Your task to perform on an android device: check android version Image 0: 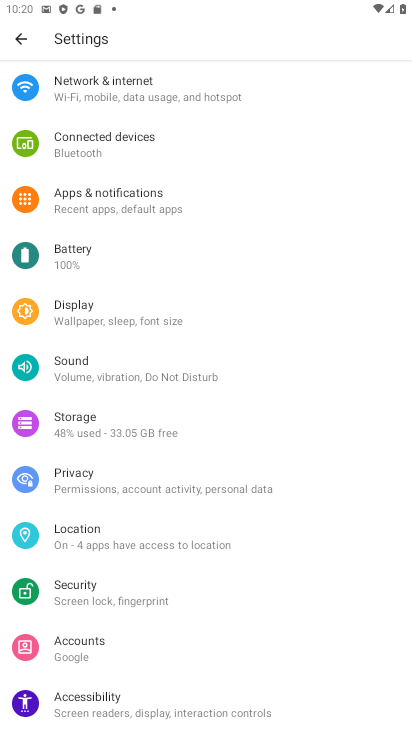
Step 0: drag from (153, 612) to (161, 266)
Your task to perform on an android device: check android version Image 1: 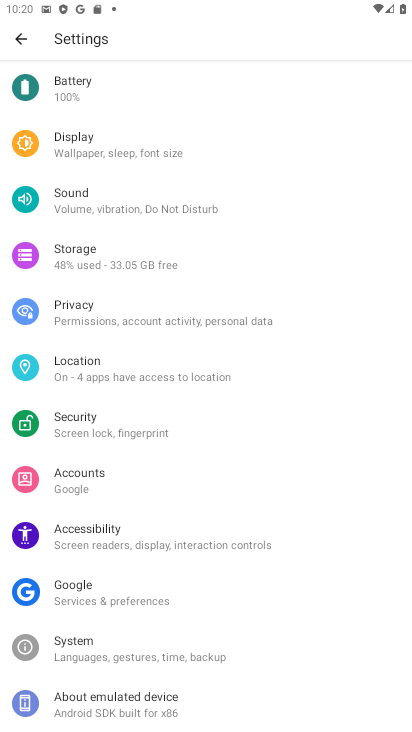
Step 1: click (101, 700)
Your task to perform on an android device: check android version Image 2: 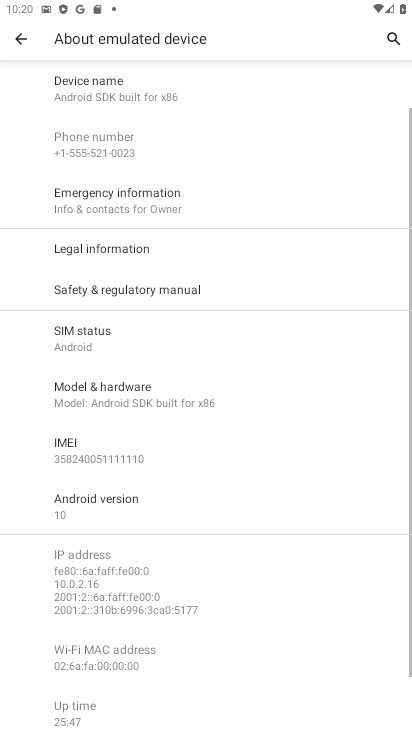
Step 2: click (134, 501)
Your task to perform on an android device: check android version Image 3: 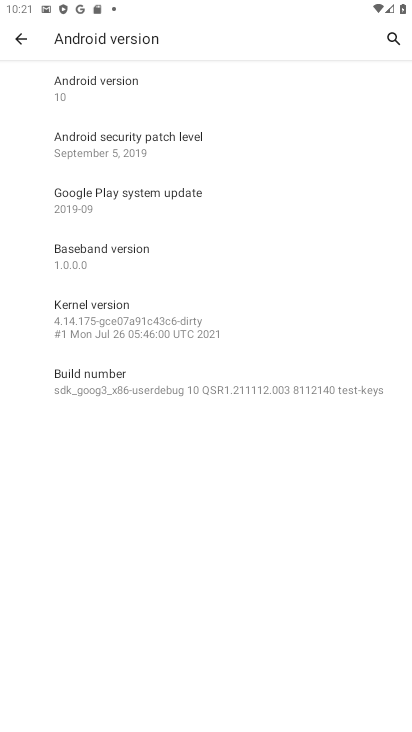
Step 3: task complete